Your task to perform on an android device: find snoozed emails in the gmail app Image 0: 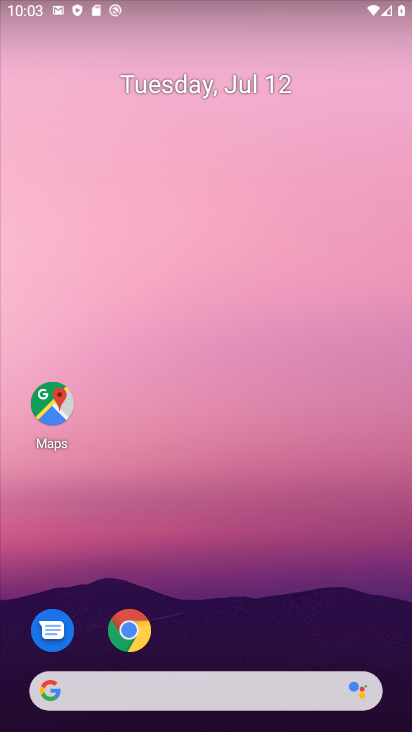
Step 0: drag from (354, 625) to (369, 136)
Your task to perform on an android device: find snoozed emails in the gmail app Image 1: 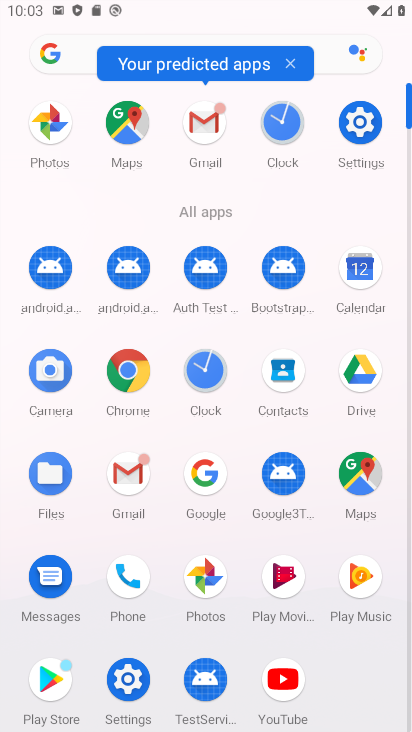
Step 1: click (132, 474)
Your task to perform on an android device: find snoozed emails in the gmail app Image 2: 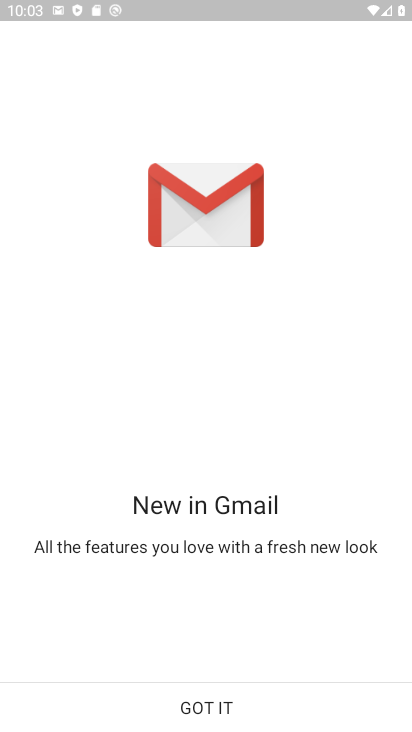
Step 2: click (227, 710)
Your task to perform on an android device: find snoozed emails in the gmail app Image 3: 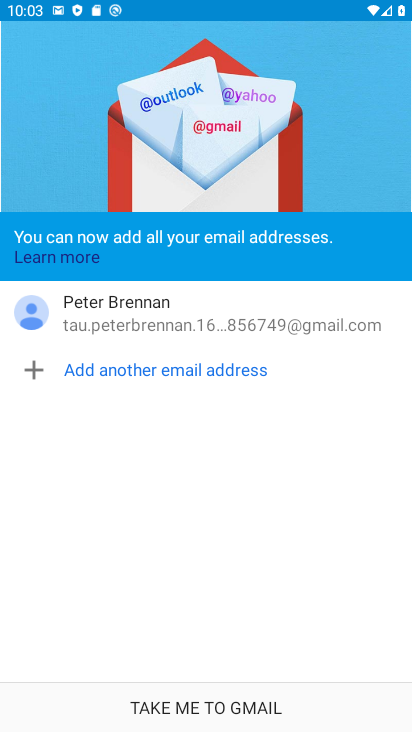
Step 3: click (304, 716)
Your task to perform on an android device: find snoozed emails in the gmail app Image 4: 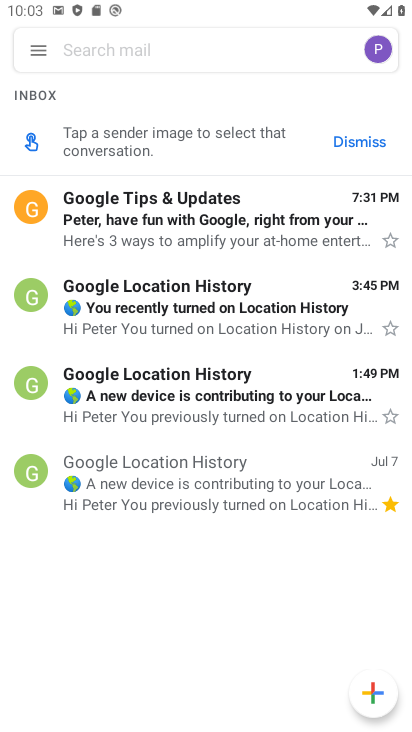
Step 4: click (35, 56)
Your task to perform on an android device: find snoozed emails in the gmail app Image 5: 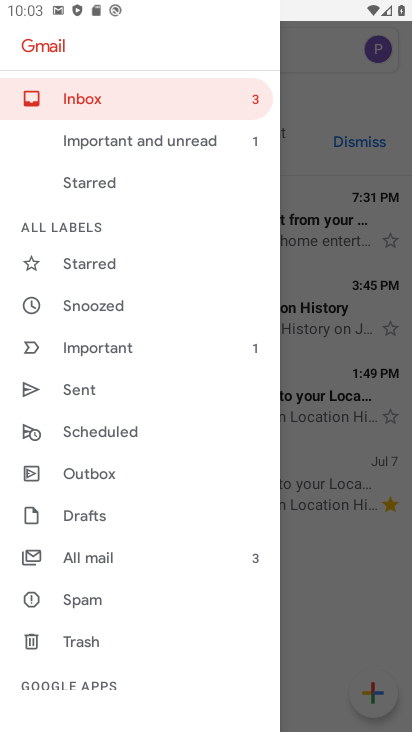
Step 5: drag from (182, 440) to (182, 279)
Your task to perform on an android device: find snoozed emails in the gmail app Image 6: 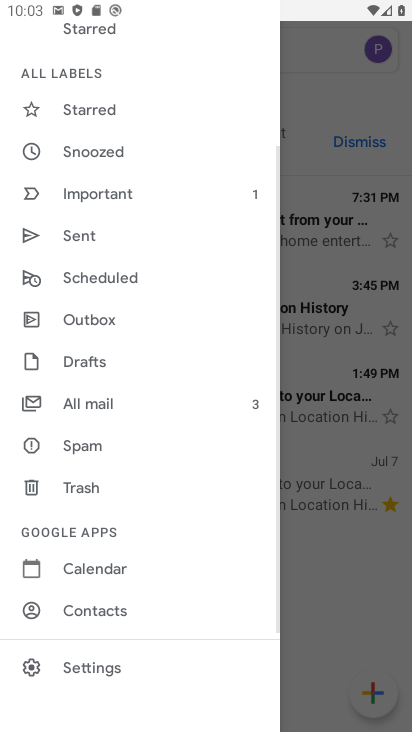
Step 6: drag from (181, 194) to (188, 363)
Your task to perform on an android device: find snoozed emails in the gmail app Image 7: 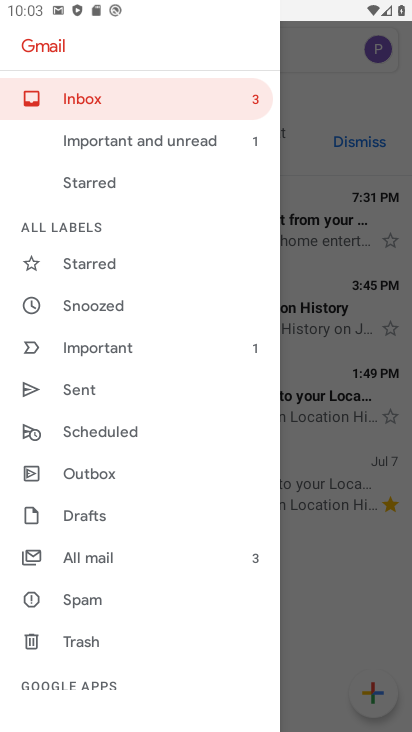
Step 7: drag from (190, 246) to (194, 378)
Your task to perform on an android device: find snoozed emails in the gmail app Image 8: 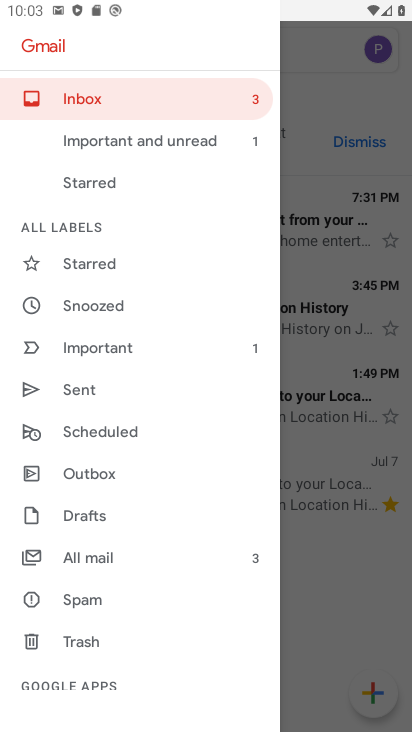
Step 8: click (95, 311)
Your task to perform on an android device: find snoozed emails in the gmail app Image 9: 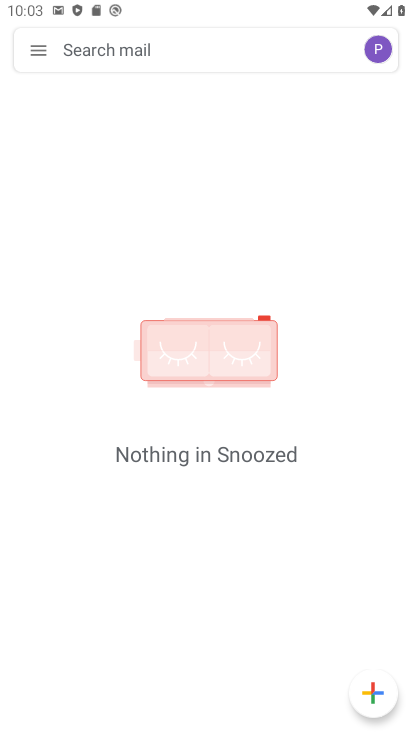
Step 9: task complete